Your task to perform on an android device: Show the shopping cart on target.com. Search for "duracell triple a" on target.com, select the first entry, add it to the cart, then select checkout. Image 0: 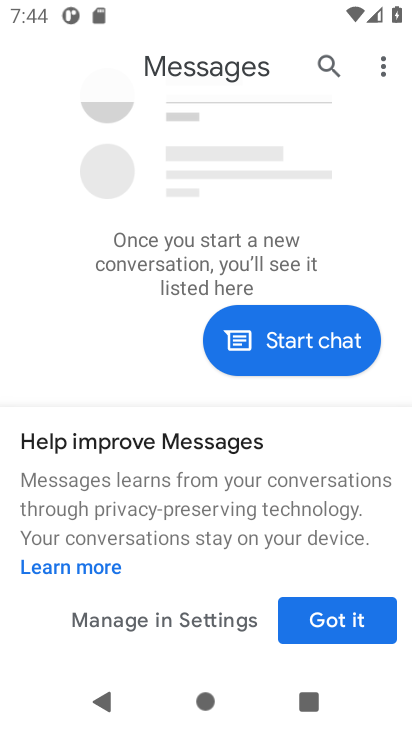
Step 0: press home button
Your task to perform on an android device: Show the shopping cart on target.com. Search for "duracell triple a" on target.com, select the first entry, add it to the cart, then select checkout. Image 1: 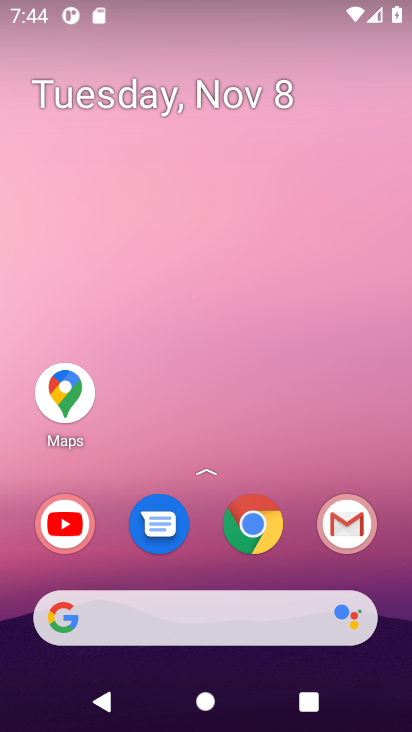
Step 1: click (253, 532)
Your task to perform on an android device: Show the shopping cart on target.com. Search for "duracell triple a" on target.com, select the first entry, add it to the cart, then select checkout. Image 2: 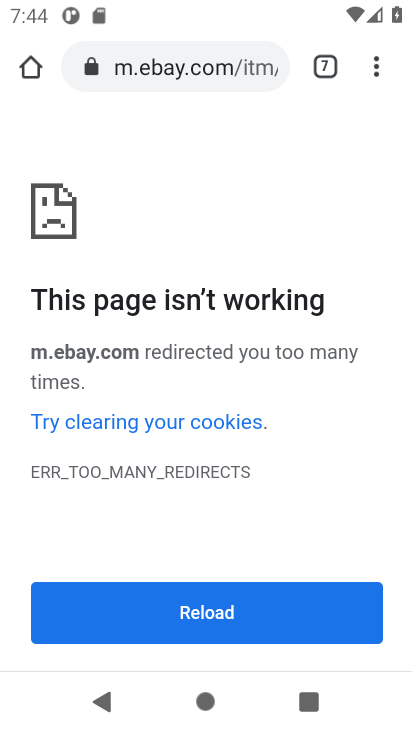
Step 2: click (213, 66)
Your task to perform on an android device: Show the shopping cart on target.com. Search for "duracell triple a" on target.com, select the first entry, add it to the cart, then select checkout. Image 3: 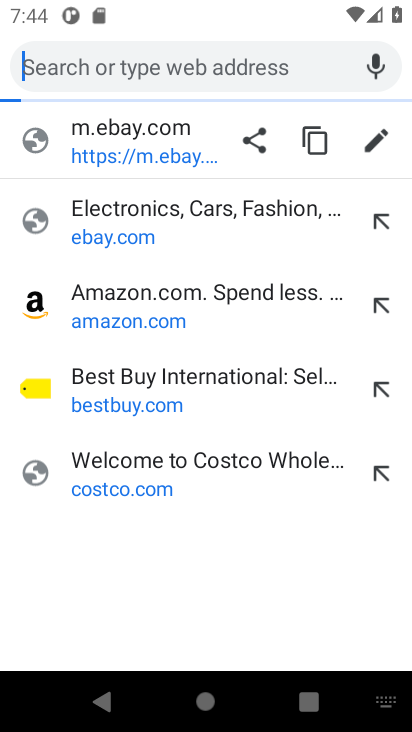
Step 3: type "target.com"
Your task to perform on an android device: Show the shopping cart on target.com. Search for "duracell triple a" on target.com, select the first entry, add it to the cart, then select checkout. Image 4: 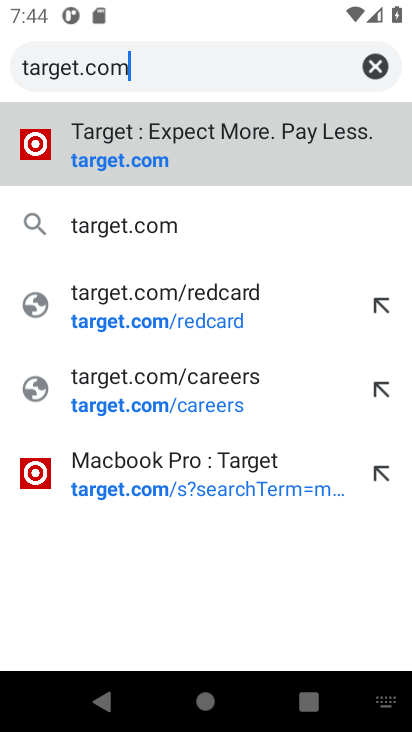
Step 4: click (138, 168)
Your task to perform on an android device: Show the shopping cart on target.com. Search for "duracell triple a" on target.com, select the first entry, add it to the cart, then select checkout. Image 5: 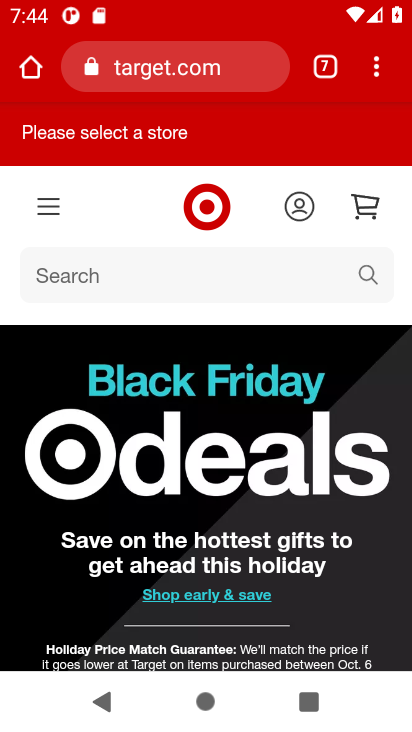
Step 5: click (358, 204)
Your task to perform on an android device: Show the shopping cart on target.com. Search for "duracell triple a" on target.com, select the first entry, add it to the cart, then select checkout. Image 6: 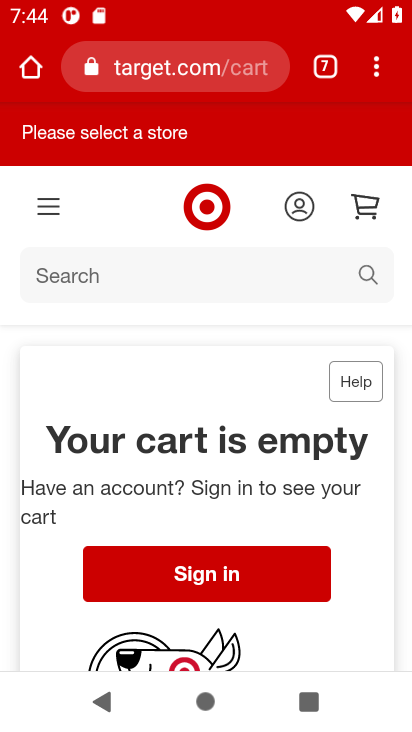
Step 6: drag from (273, 596) to (301, 404)
Your task to perform on an android device: Show the shopping cart on target.com. Search for "duracell triple a" on target.com, select the first entry, add it to the cart, then select checkout. Image 7: 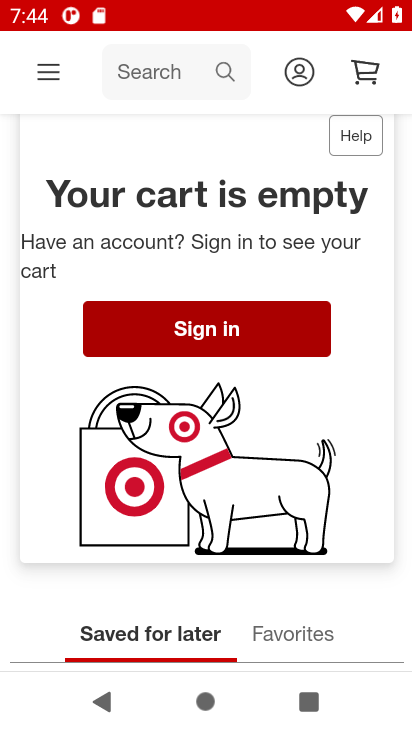
Step 7: click (223, 78)
Your task to perform on an android device: Show the shopping cart on target.com. Search for "duracell triple a" on target.com, select the first entry, add it to the cart, then select checkout. Image 8: 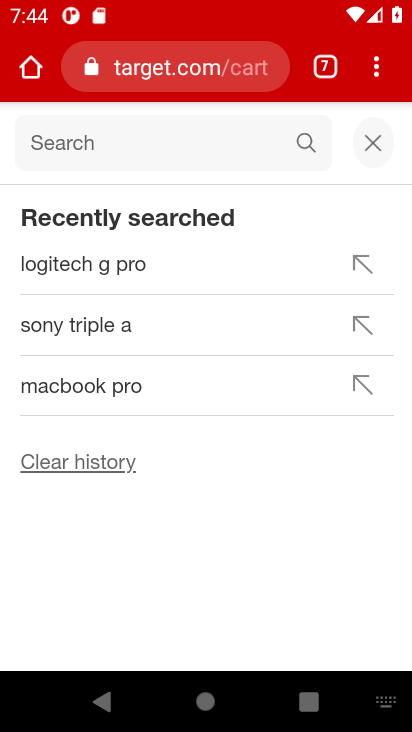
Step 8: type "duracell triple a"
Your task to perform on an android device: Show the shopping cart on target.com. Search for "duracell triple a" on target.com, select the first entry, add it to the cart, then select checkout. Image 9: 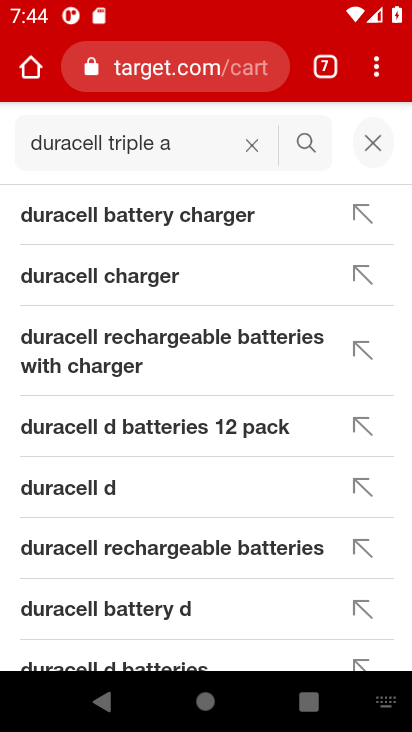
Step 9: click (305, 146)
Your task to perform on an android device: Show the shopping cart on target.com. Search for "duracell triple a" on target.com, select the first entry, add it to the cart, then select checkout. Image 10: 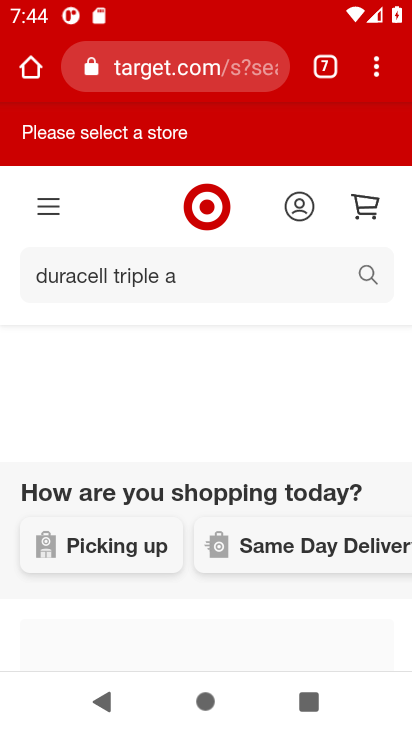
Step 10: drag from (174, 584) to (202, 320)
Your task to perform on an android device: Show the shopping cart on target.com. Search for "duracell triple a" on target.com, select the first entry, add it to the cart, then select checkout. Image 11: 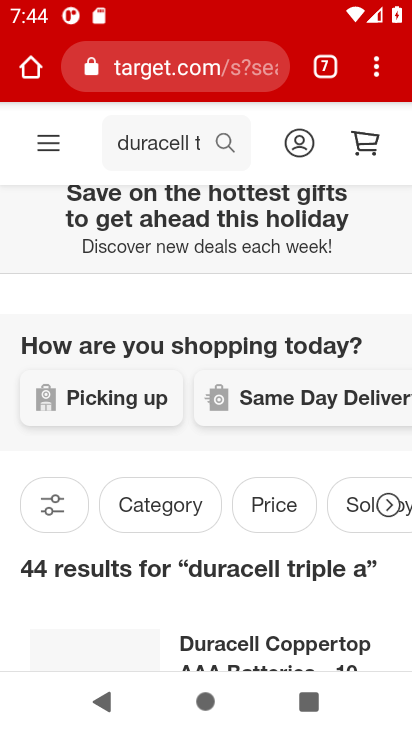
Step 11: drag from (167, 561) to (176, 279)
Your task to perform on an android device: Show the shopping cart on target.com. Search for "duracell triple a" on target.com, select the first entry, add it to the cart, then select checkout. Image 12: 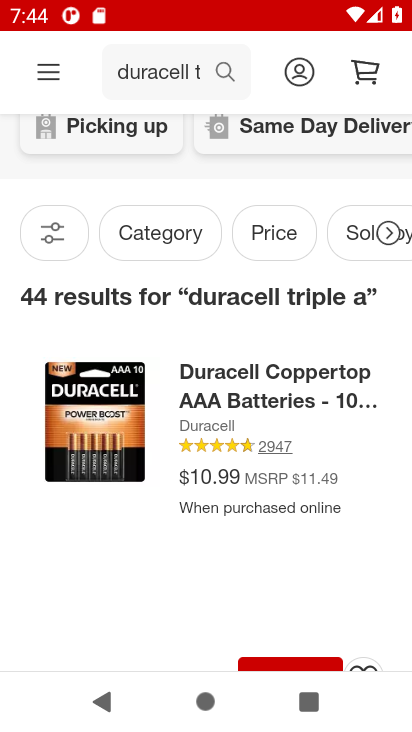
Step 12: click (143, 437)
Your task to perform on an android device: Show the shopping cart on target.com. Search for "duracell triple a" on target.com, select the first entry, add it to the cart, then select checkout. Image 13: 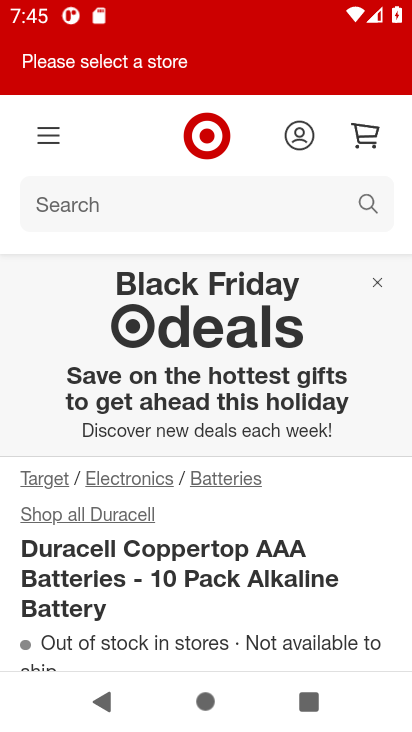
Step 13: drag from (180, 592) to (207, 296)
Your task to perform on an android device: Show the shopping cart on target.com. Search for "duracell triple a" on target.com, select the first entry, add it to the cart, then select checkout. Image 14: 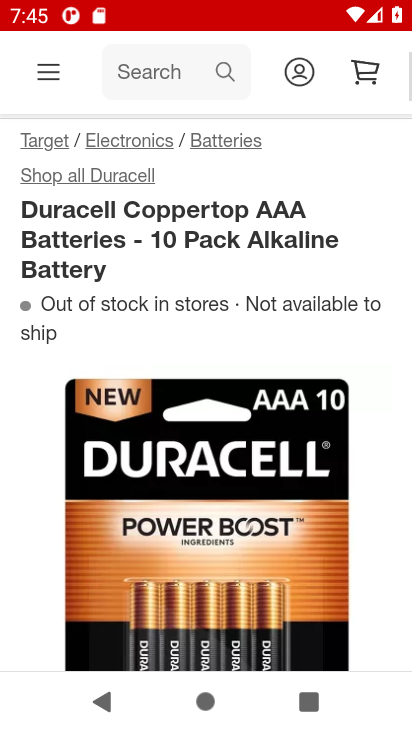
Step 14: drag from (199, 501) to (198, 248)
Your task to perform on an android device: Show the shopping cart on target.com. Search for "duracell triple a" on target.com, select the first entry, add it to the cart, then select checkout. Image 15: 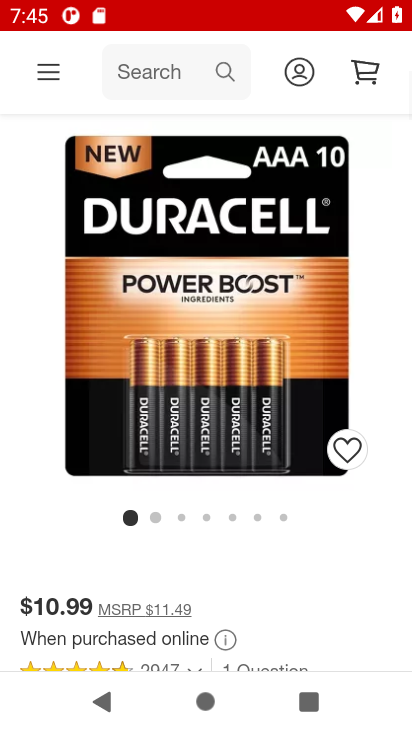
Step 15: drag from (196, 512) to (196, 237)
Your task to perform on an android device: Show the shopping cart on target.com. Search for "duracell triple a" on target.com, select the first entry, add it to the cart, then select checkout. Image 16: 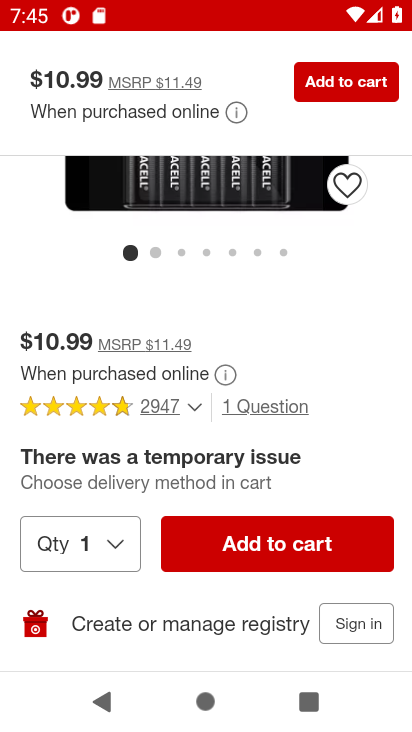
Step 16: click (265, 540)
Your task to perform on an android device: Show the shopping cart on target.com. Search for "duracell triple a" on target.com, select the first entry, add it to the cart, then select checkout. Image 17: 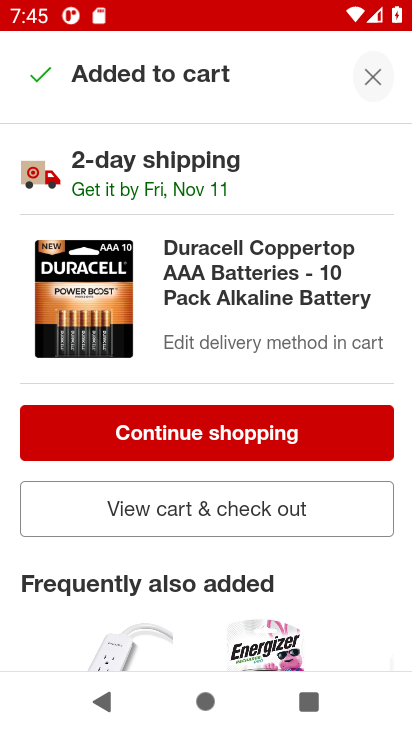
Step 17: click (231, 503)
Your task to perform on an android device: Show the shopping cart on target.com. Search for "duracell triple a" on target.com, select the first entry, add it to the cart, then select checkout. Image 18: 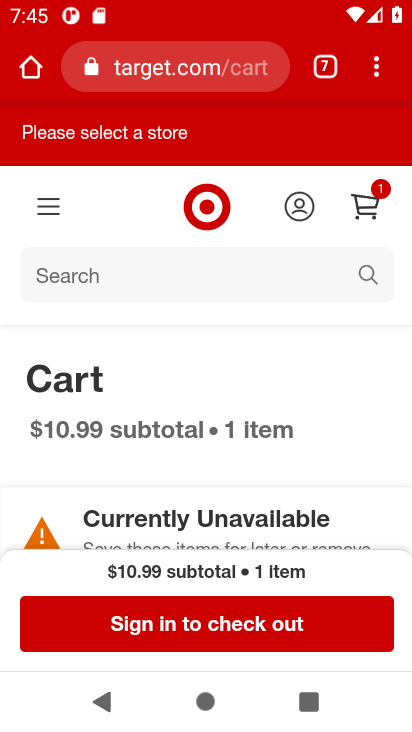
Step 18: click (193, 620)
Your task to perform on an android device: Show the shopping cart on target.com. Search for "duracell triple a" on target.com, select the first entry, add it to the cart, then select checkout. Image 19: 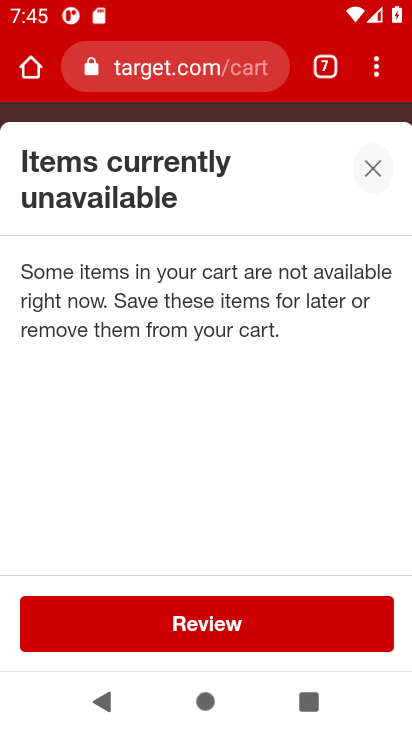
Step 19: task complete